Your task to perform on an android device: turn on translation in the chrome app Image 0: 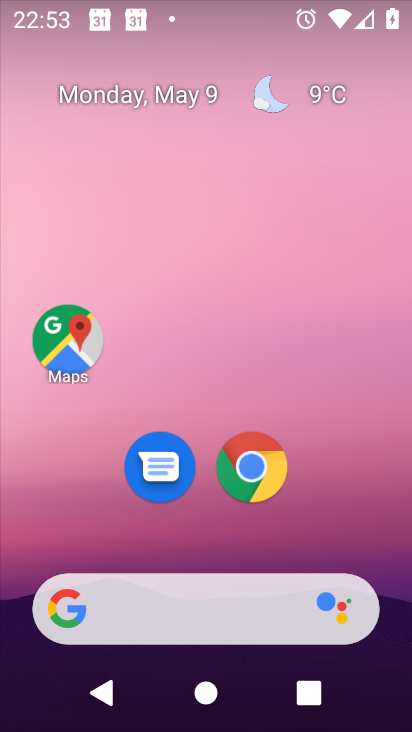
Step 0: click (260, 471)
Your task to perform on an android device: turn on translation in the chrome app Image 1: 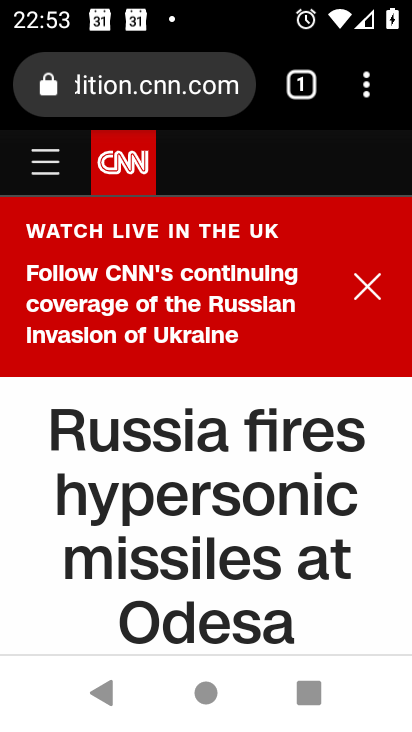
Step 1: drag from (367, 86) to (100, 526)
Your task to perform on an android device: turn on translation in the chrome app Image 2: 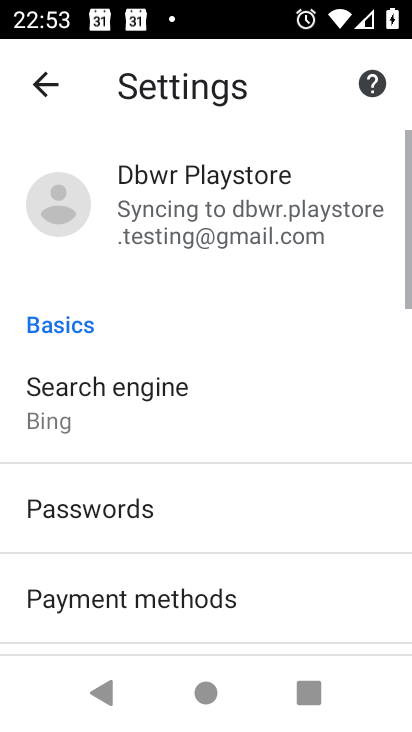
Step 2: drag from (214, 562) to (207, 30)
Your task to perform on an android device: turn on translation in the chrome app Image 3: 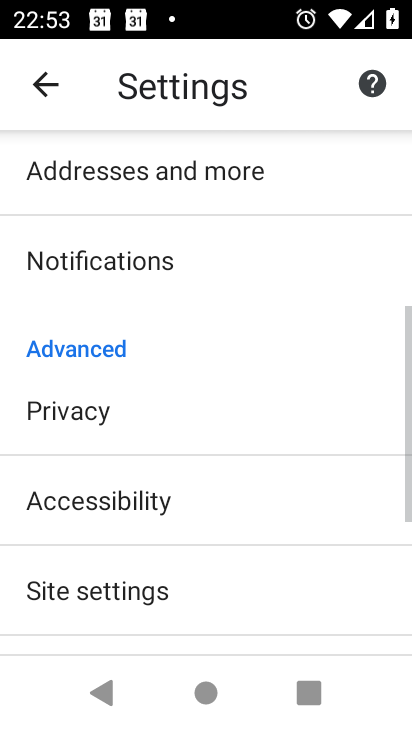
Step 3: click (209, 92)
Your task to perform on an android device: turn on translation in the chrome app Image 4: 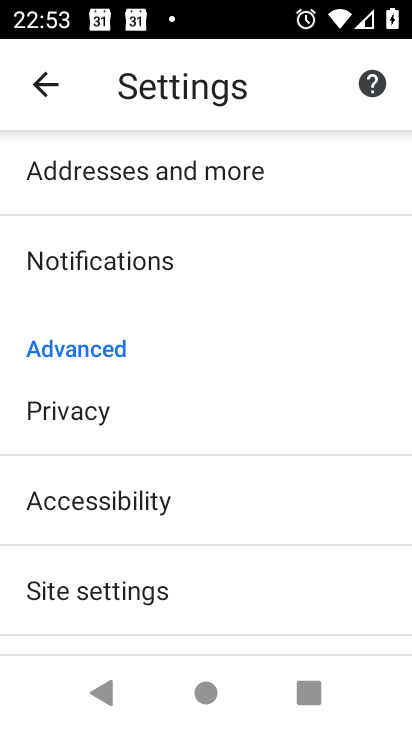
Step 4: drag from (163, 581) to (189, 136)
Your task to perform on an android device: turn on translation in the chrome app Image 5: 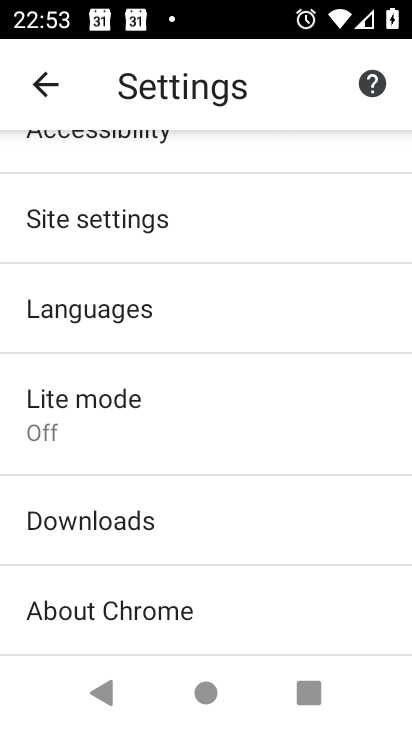
Step 5: click (71, 318)
Your task to perform on an android device: turn on translation in the chrome app Image 6: 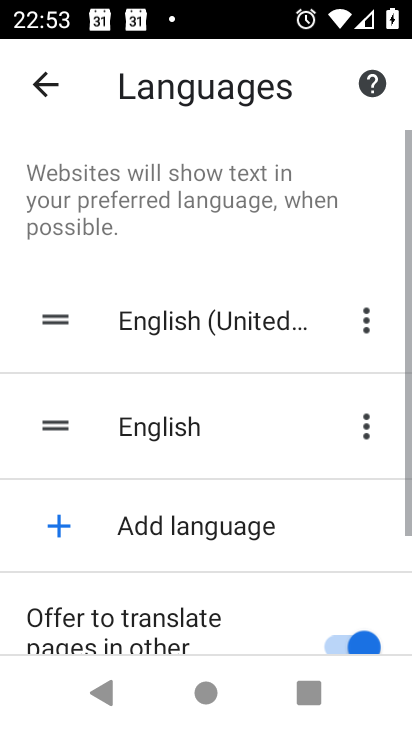
Step 6: task complete